Your task to perform on an android device: Go to accessibility settings Image 0: 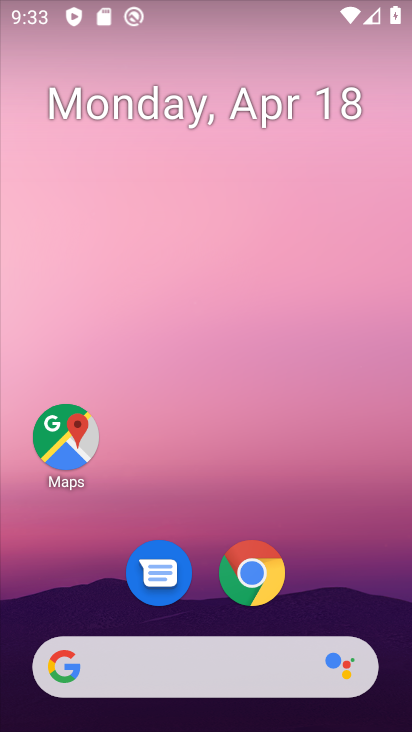
Step 0: drag from (378, 596) to (242, 50)
Your task to perform on an android device: Go to accessibility settings Image 1: 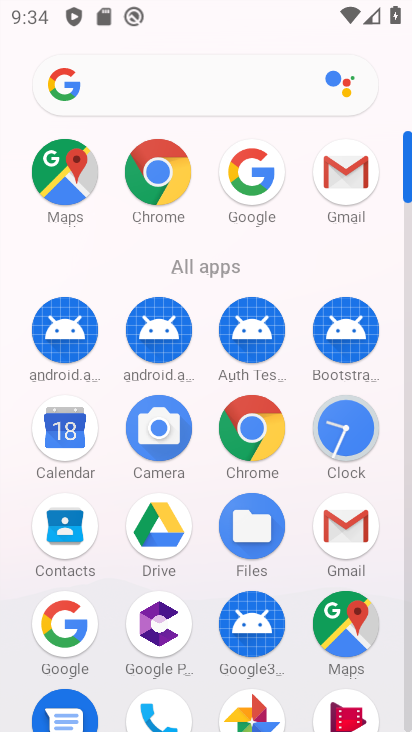
Step 1: click (409, 727)
Your task to perform on an android device: Go to accessibility settings Image 2: 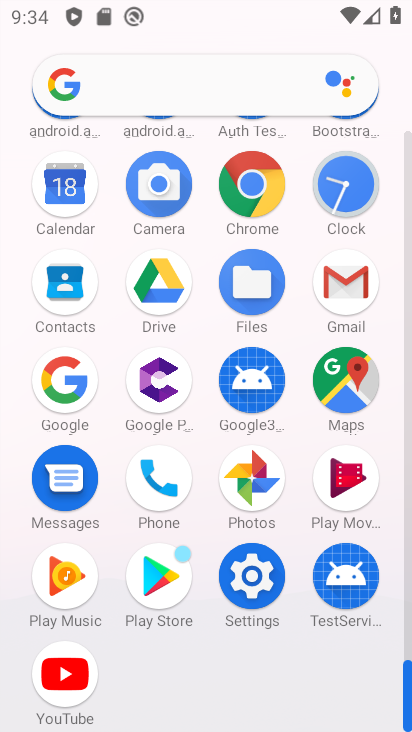
Step 2: click (271, 596)
Your task to perform on an android device: Go to accessibility settings Image 3: 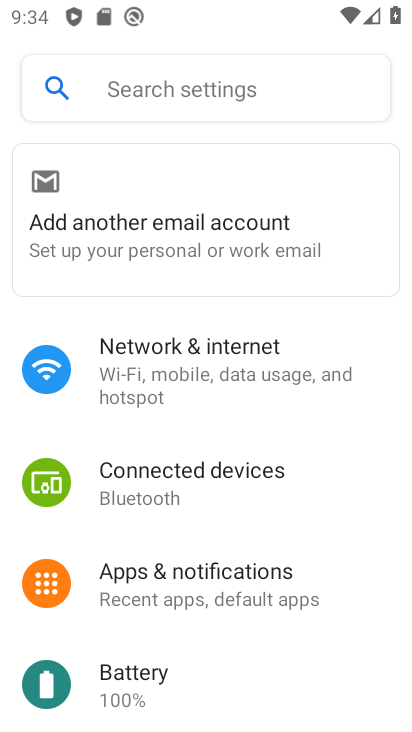
Step 3: drag from (188, 586) to (190, 110)
Your task to perform on an android device: Go to accessibility settings Image 4: 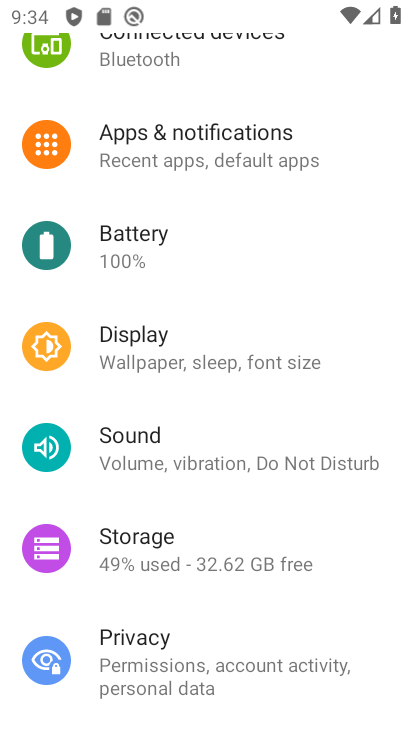
Step 4: drag from (199, 641) to (244, 115)
Your task to perform on an android device: Go to accessibility settings Image 5: 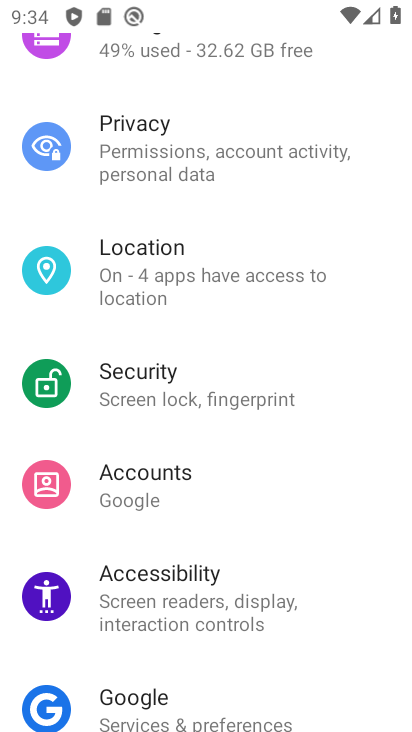
Step 5: click (191, 612)
Your task to perform on an android device: Go to accessibility settings Image 6: 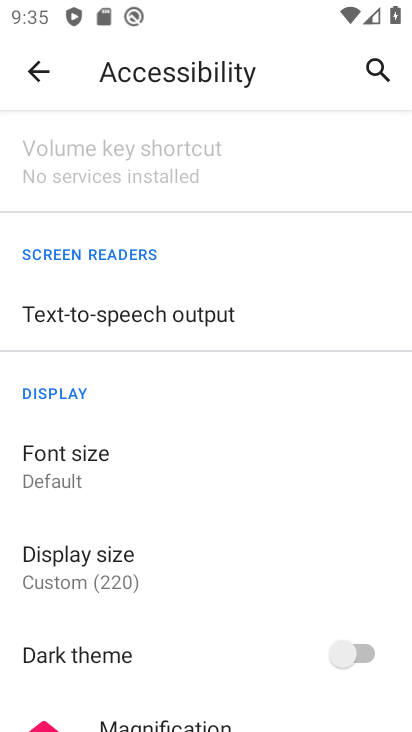
Step 6: task complete